Your task to perform on an android device: toggle translation in the chrome app Image 0: 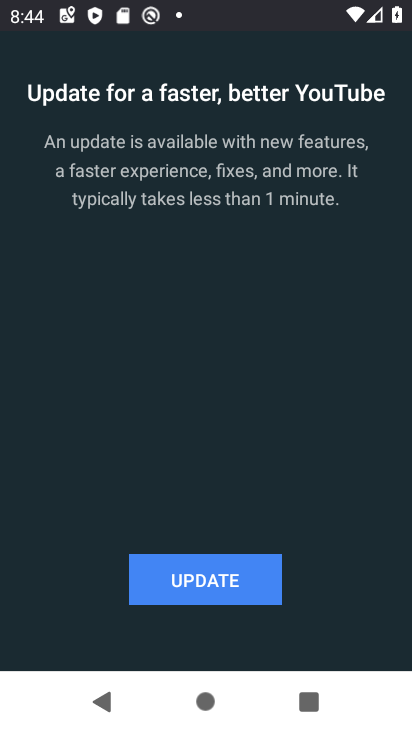
Step 0: press home button
Your task to perform on an android device: toggle translation in the chrome app Image 1: 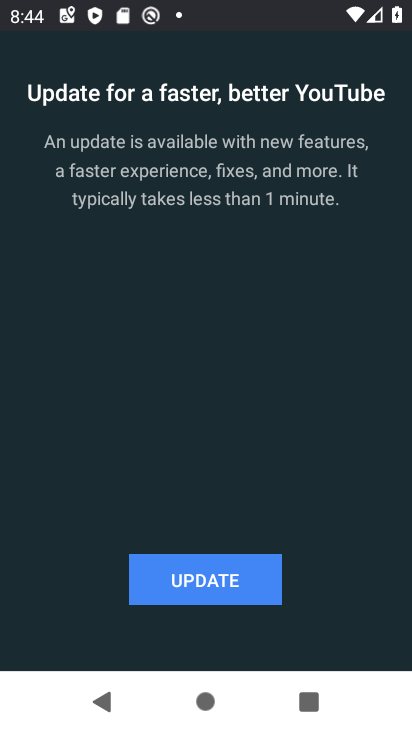
Step 1: press home button
Your task to perform on an android device: toggle translation in the chrome app Image 2: 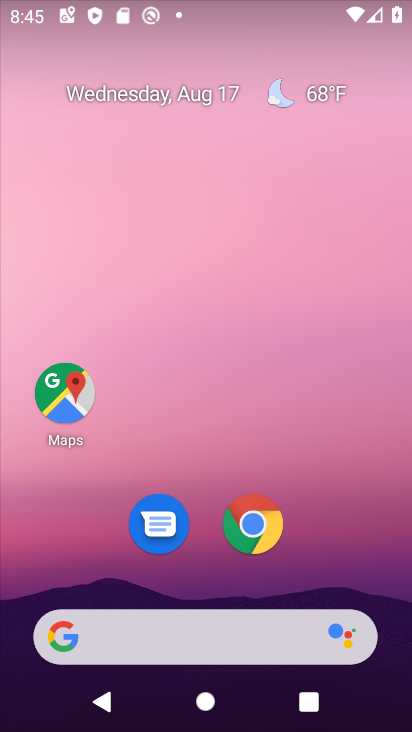
Step 2: click (250, 522)
Your task to perform on an android device: toggle translation in the chrome app Image 3: 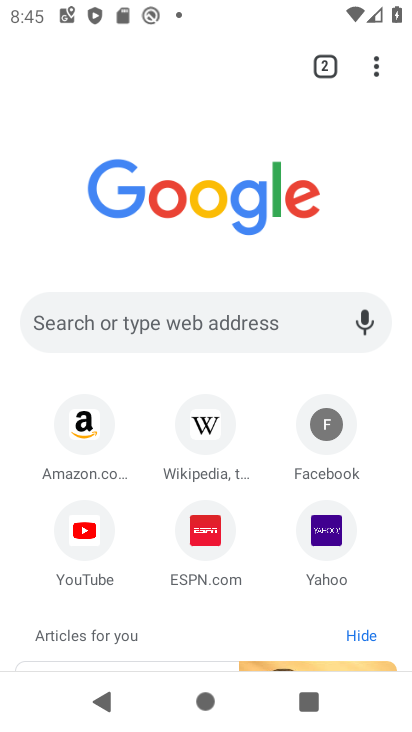
Step 3: click (374, 74)
Your task to perform on an android device: toggle translation in the chrome app Image 4: 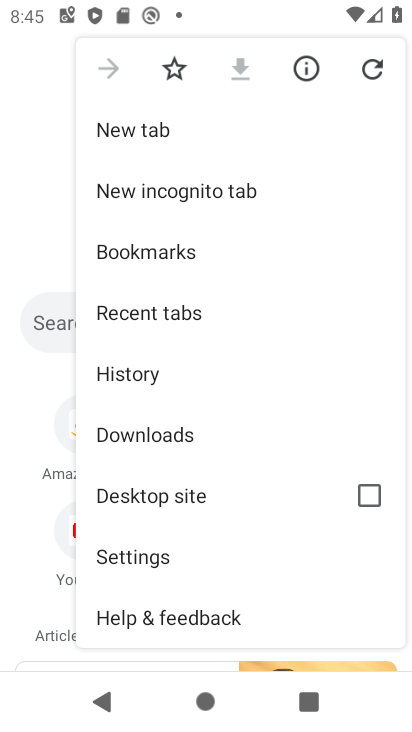
Step 4: click (219, 555)
Your task to perform on an android device: toggle translation in the chrome app Image 5: 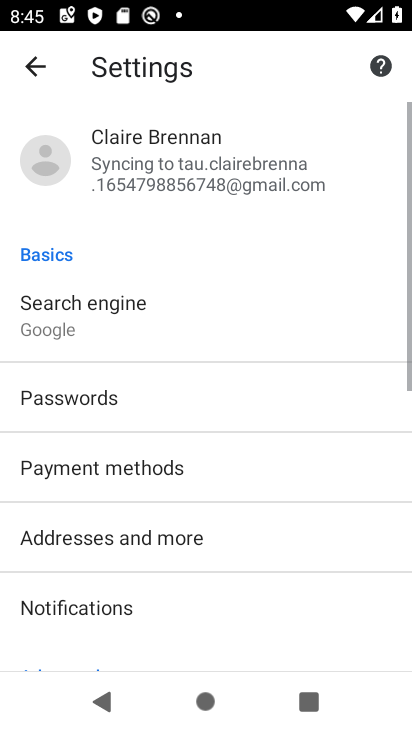
Step 5: drag from (227, 547) to (282, 39)
Your task to perform on an android device: toggle translation in the chrome app Image 6: 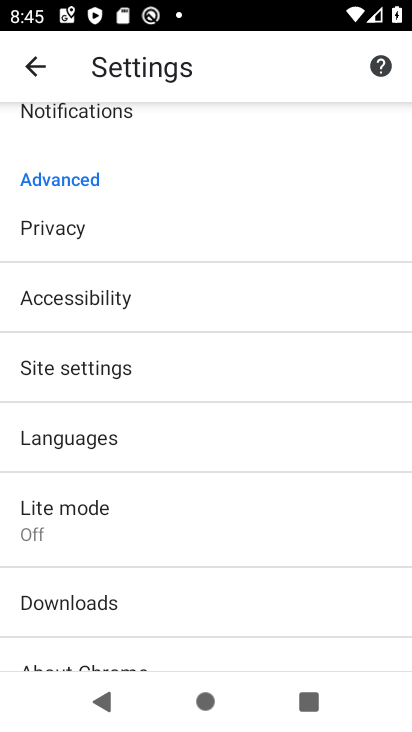
Step 6: drag from (256, 454) to (265, 364)
Your task to perform on an android device: toggle translation in the chrome app Image 7: 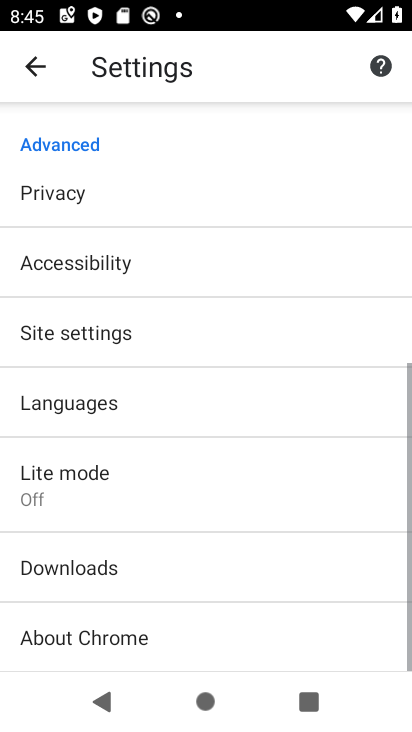
Step 7: click (262, 390)
Your task to perform on an android device: toggle translation in the chrome app Image 8: 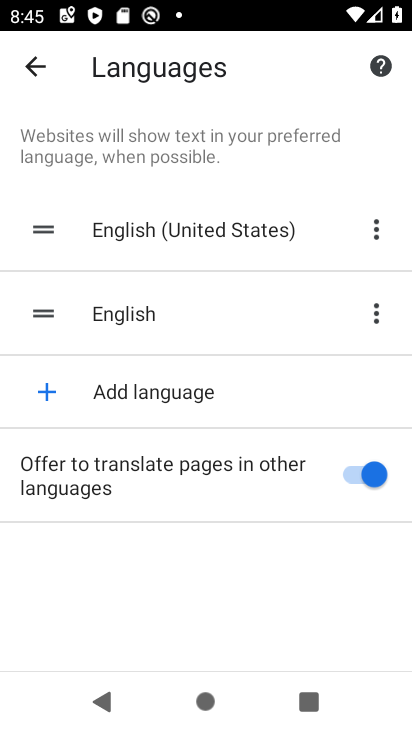
Step 8: click (371, 472)
Your task to perform on an android device: toggle translation in the chrome app Image 9: 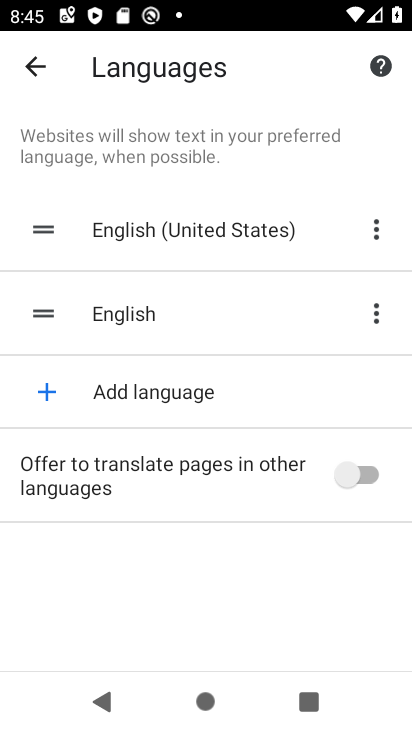
Step 9: task complete